Your task to perform on an android device: Open display settings Image 0: 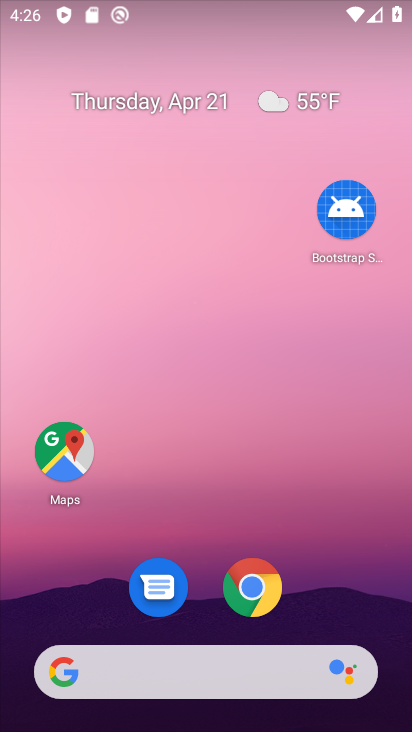
Step 0: drag from (323, 524) to (329, 134)
Your task to perform on an android device: Open display settings Image 1: 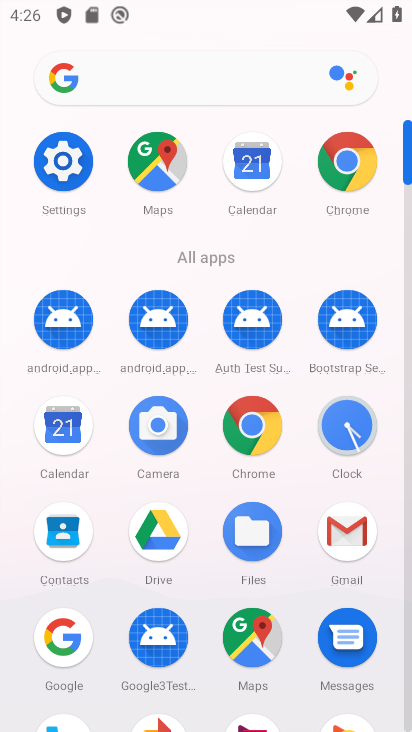
Step 1: drag from (297, 285) to (311, 41)
Your task to perform on an android device: Open display settings Image 2: 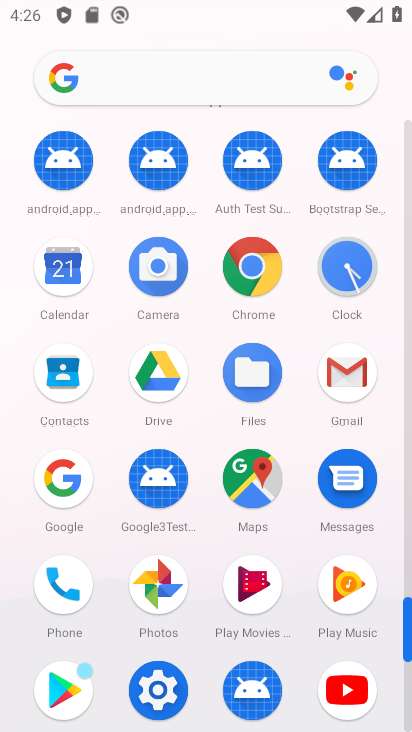
Step 2: click (159, 701)
Your task to perform on an android device: Open display settings Image 3: 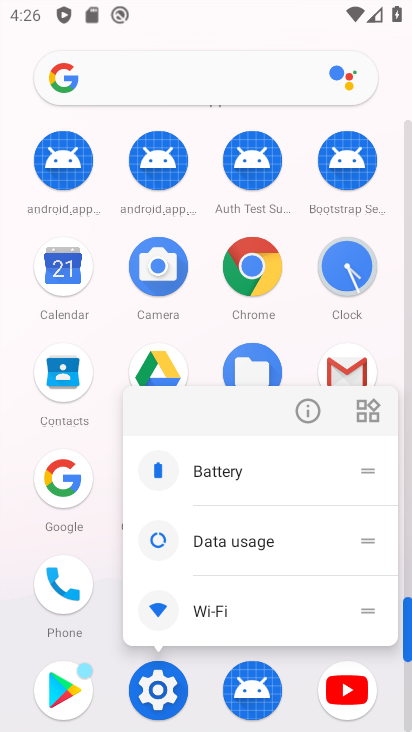
Step 3: click (154, 671)
Your task to perform on an android device: Open display settings Image 4: 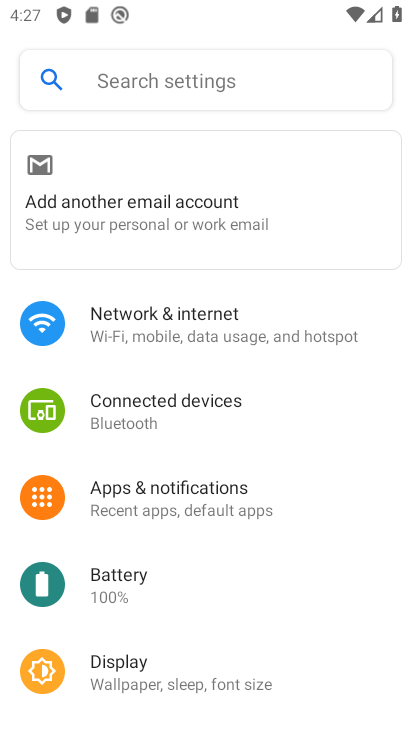
Step 4: click (127, 676)
Your task to perform on an android device: Open display settings Image 5: 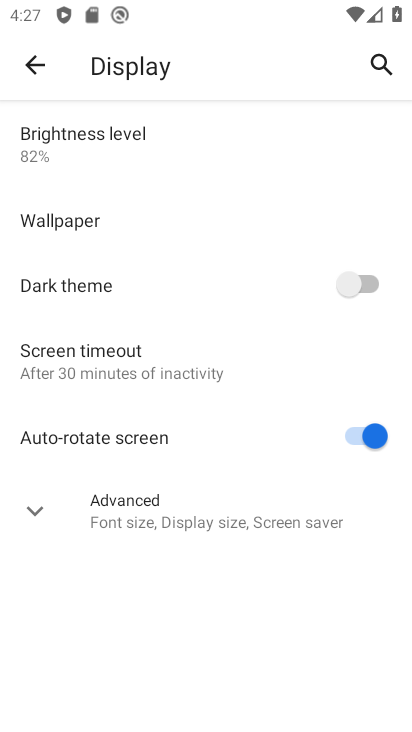
Step 5: task complete